Your task to perform on an android device: Open my contact list Image 0: 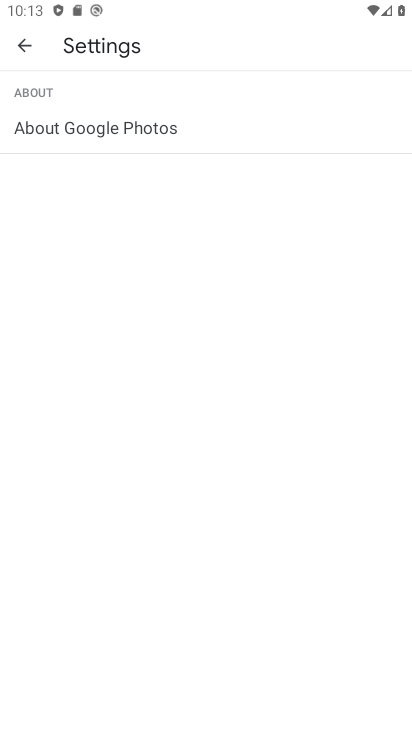
Step 0: press home button
Your task to perform on an android device: Open my contact list Image 1: 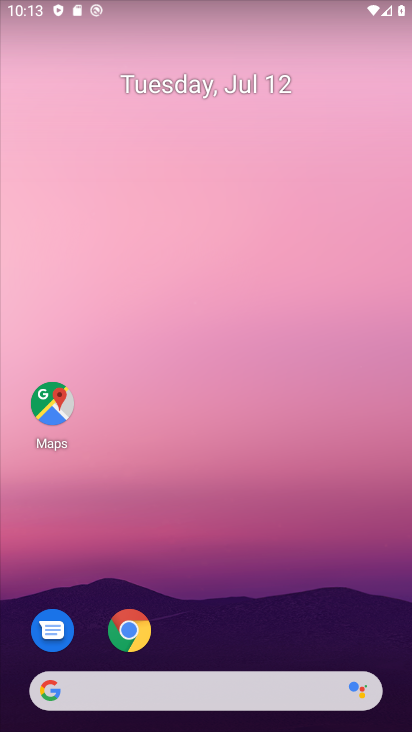
Step 1: drag from (339, 623) to (333, 252)
Your task to perform on an android device: Open my contact list Image 2: 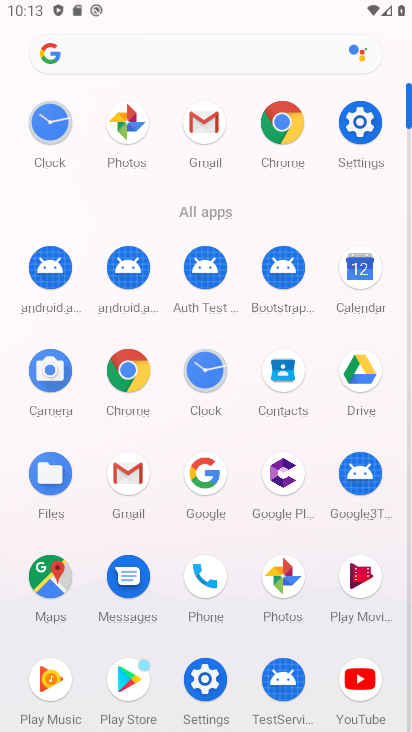
Step 2: click (286, 369)
Your task to perform on an android device: Open my contact list Image 3: 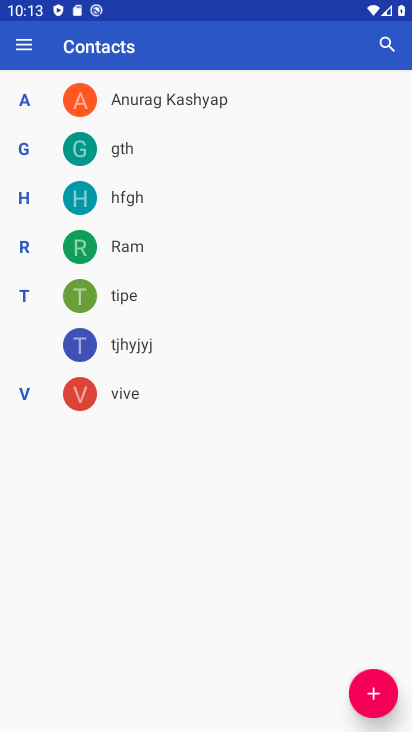
Step 3: task complete